Your task to perform on an android device: turn off airplane mode Image 0: 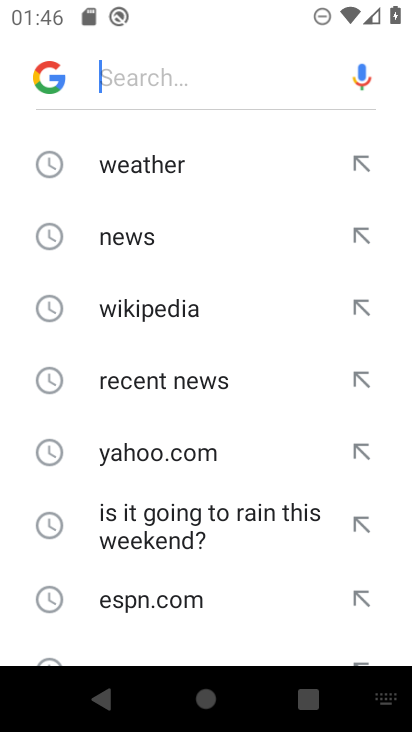
Step 0: press home button
Your task to perform on an android device: turn off airplane mode Image 1: 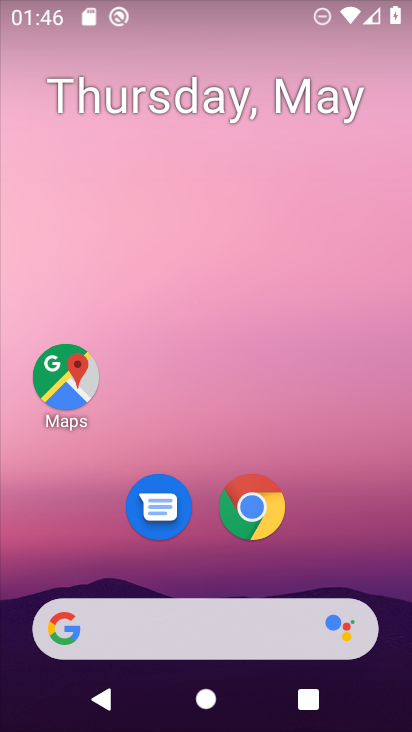
Step 1: drag from (378, 544) to (311, 148)
Your task to perform on an android device: turn off airplane mode Image 2: 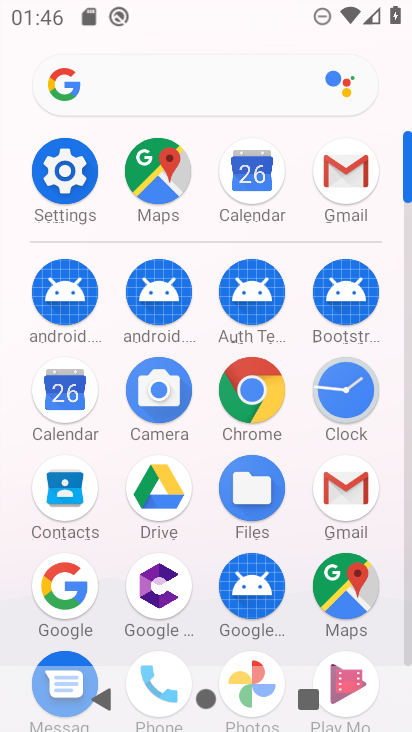
Step 2: click (80, 159)
Your task to perform on an android device: turn off airplane mode Image 3: 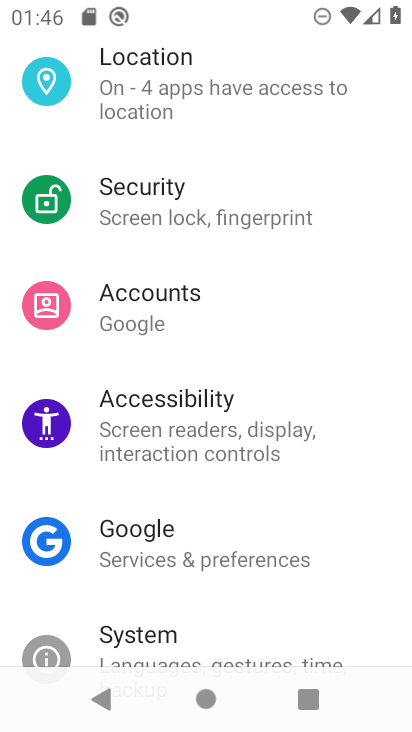
Step 3: drag from (180, 140) to (240, 602)
Your task to perform on an android device: turn off airplane mode Image 4: 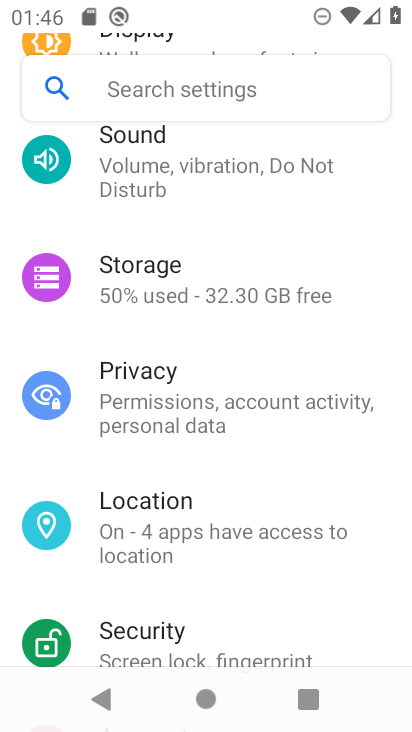
Step 4: drag from (199, 160) to (195, 710)
Your task to perform on an android device: turn off airplane mode Image 5: 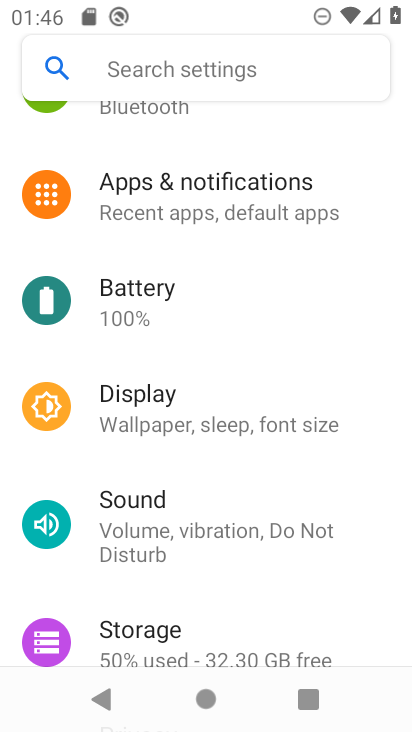
Step 5: drag from (230, 205) to (304, 697)
Your task to perform on an android device: turn off airplane mode Image 6: 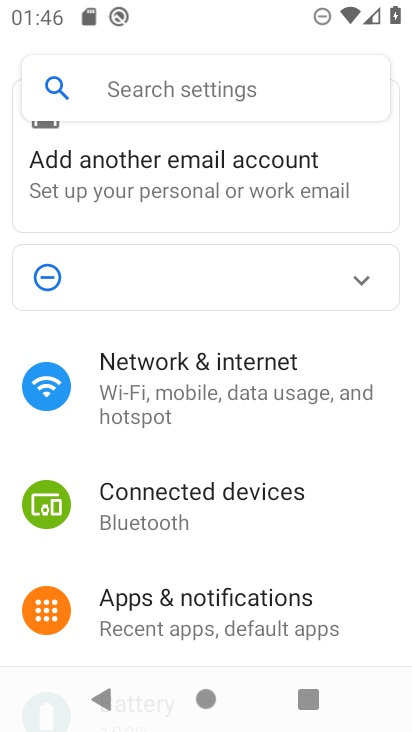
Step 6: click (223, 402)
Your task to perform on an android device: turn off airplane mode Image 7: 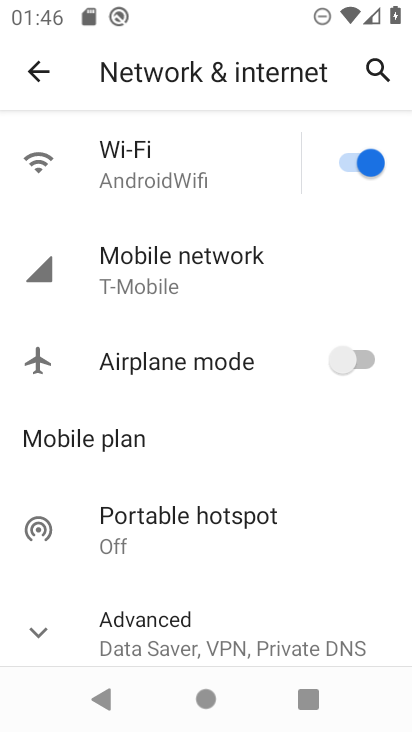
Step 7: click (210, 357)
Your task to perform on an android device: turn off airplane mode Image 8: 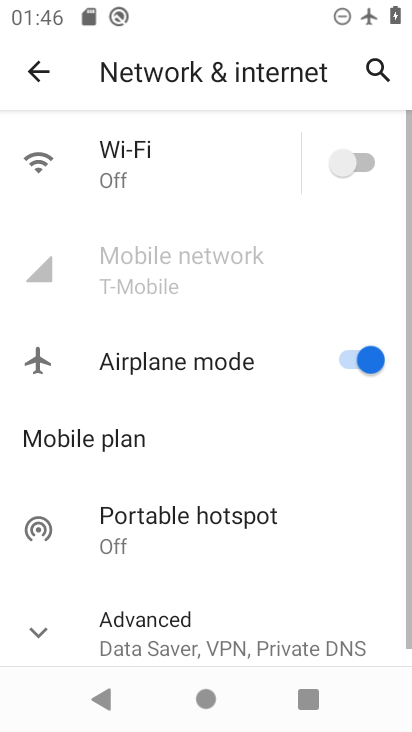
Step 8: task complete